Your task to perform on an android device: turn off location Image 0: 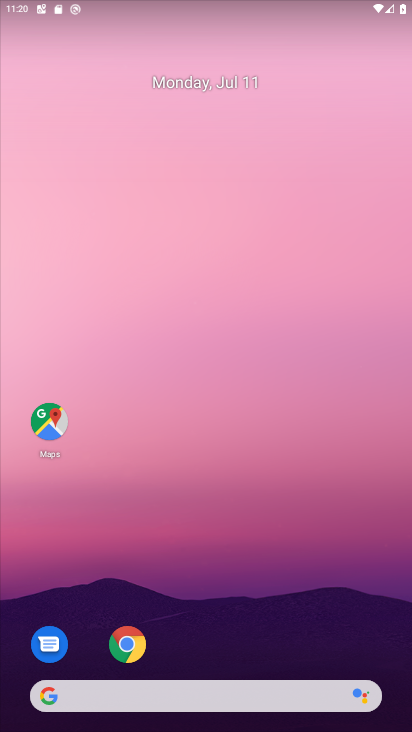
Step 0: drag from (248, 621) to (273, 189)
Your task to perform on an android device: turn off location Image 1: 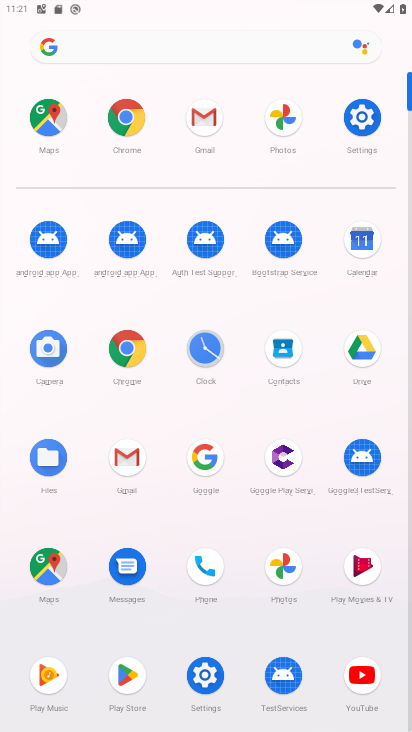
Step 1: click (361, 107)
Your task to perform on an android device: turn off location Image 2: 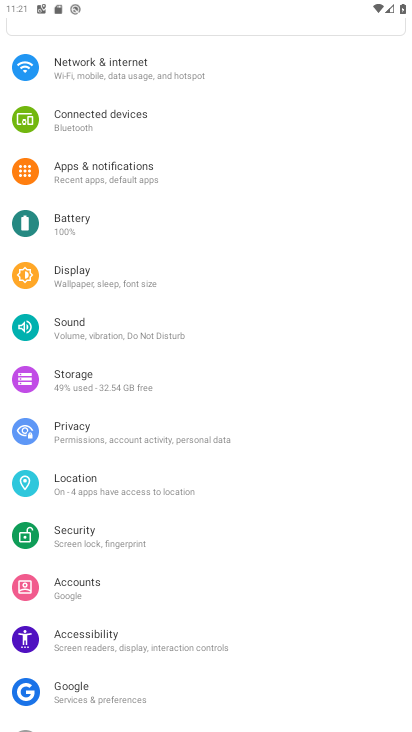
Step 2: click (143, 484)
Your task to perform on an android device: turn off location Image 3: 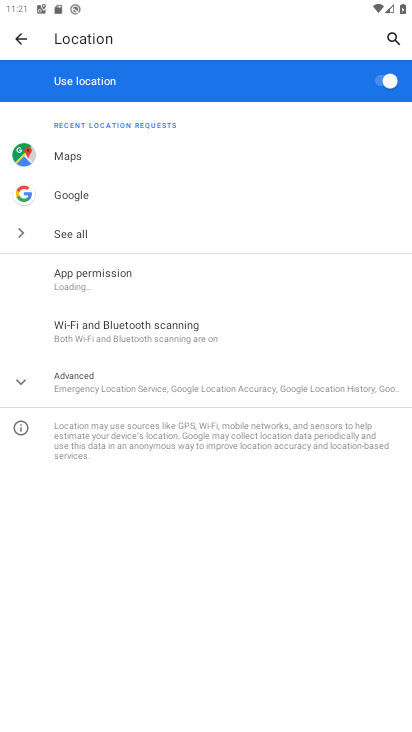
Step 3: click (388, 61)
Your task to perform on an android device: turn off location Image 4: 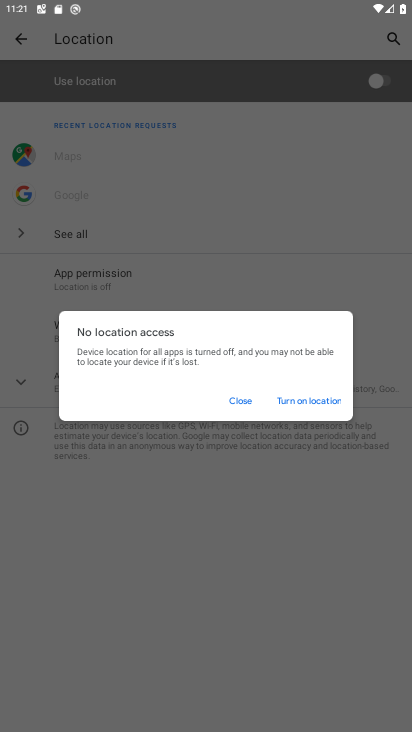
Step 4: task complete